Your task to perform on an android device: Open Android settings Image 0: 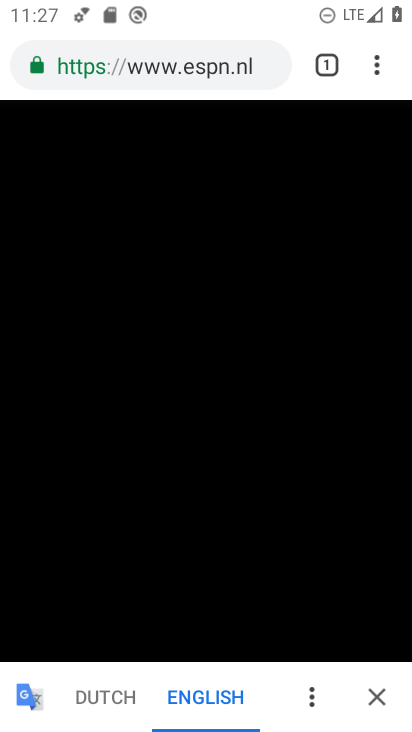
Step 0: press home button
Your task to perform on an android device: Open Android settings Image 1: 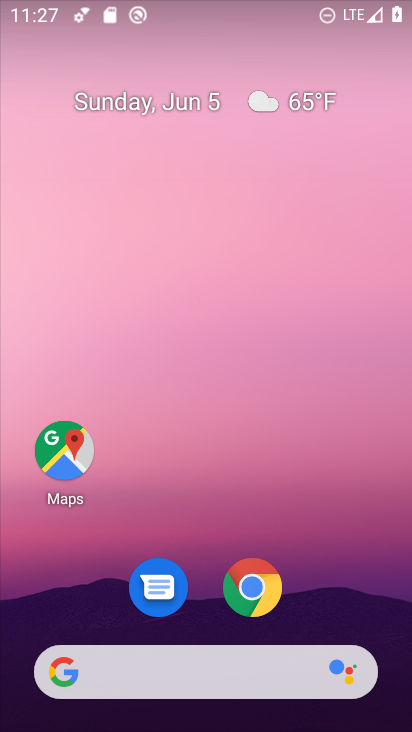
Step 1: drag from (202, 612) to (275, 38)
Your task to perform on an android device: Open Android settings Image 2: 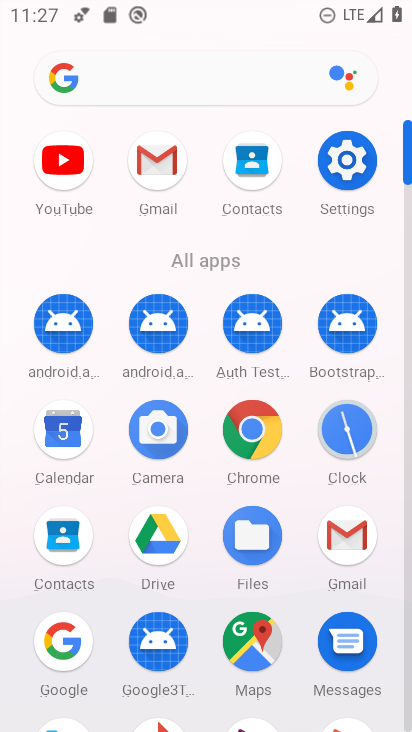
Step 2: click (347, 154)
Your task to perform on an android device: Open Android settings Image 3: 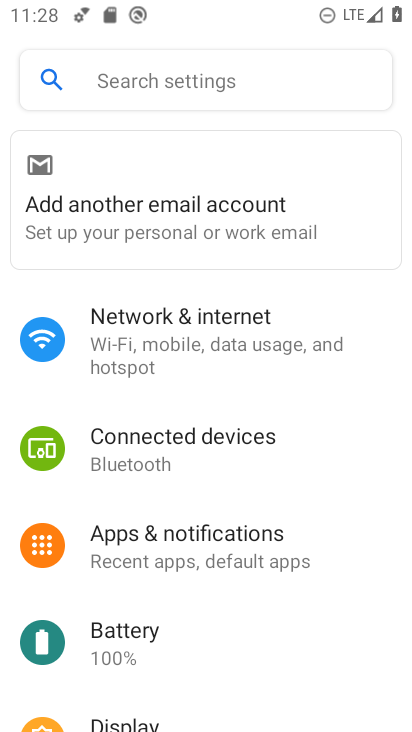
Step 3: task complete